Your task to perform on an android device: Go to calendar. Show me events next week Image 0: 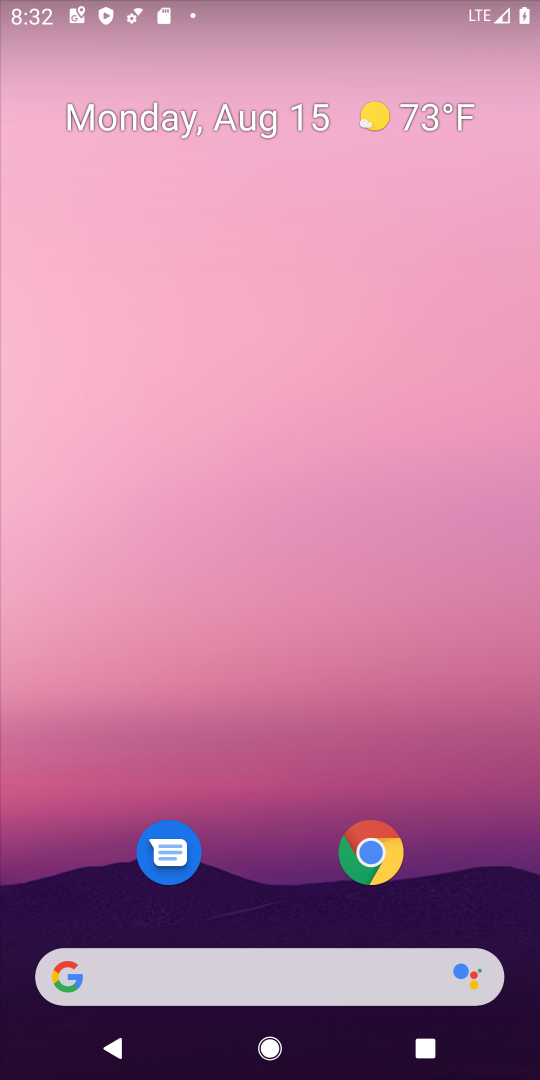
Step 0: drag from (231, 974) to (289, 196)
Your task to perform on an android device: Go to calendar. Show me events next week Image 1: 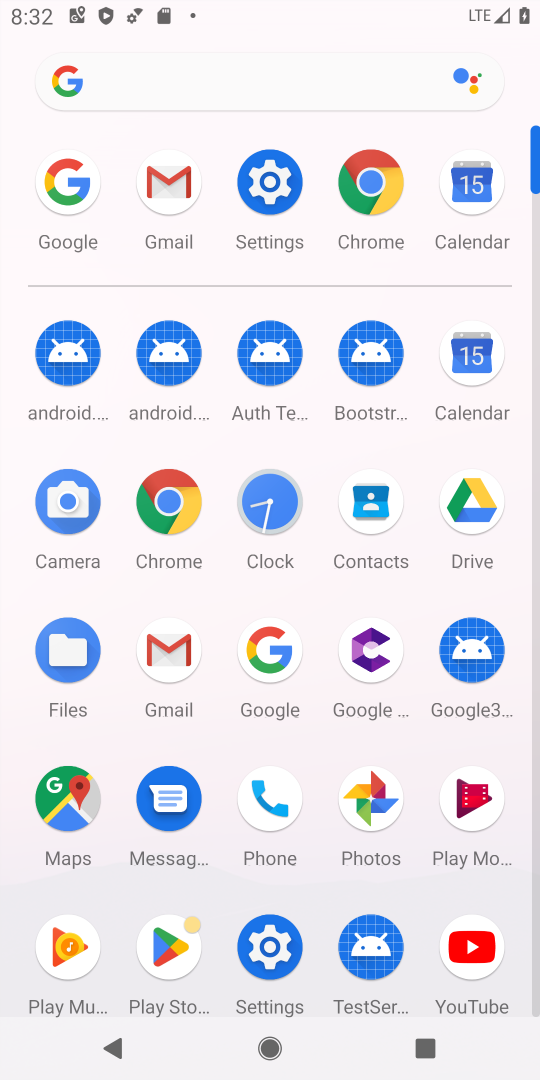
Step 1: click (474, 355)
Your task to perform on an android device: Go to calendar. Show me events next week Image 2: 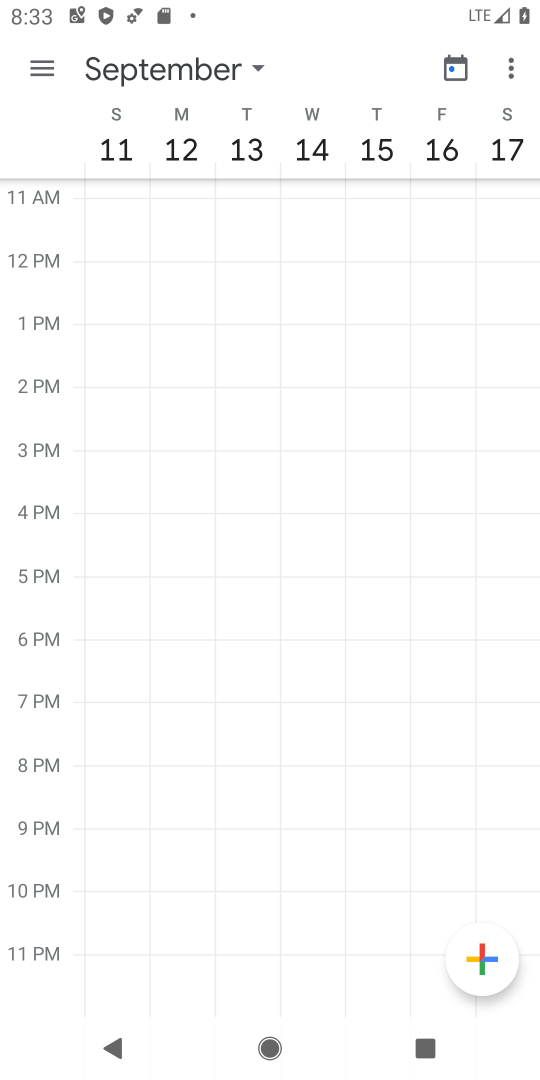
Step 2: click (455, 70)
Your task to perform on an android device: Go to calendar. Show me events next week Image 3: 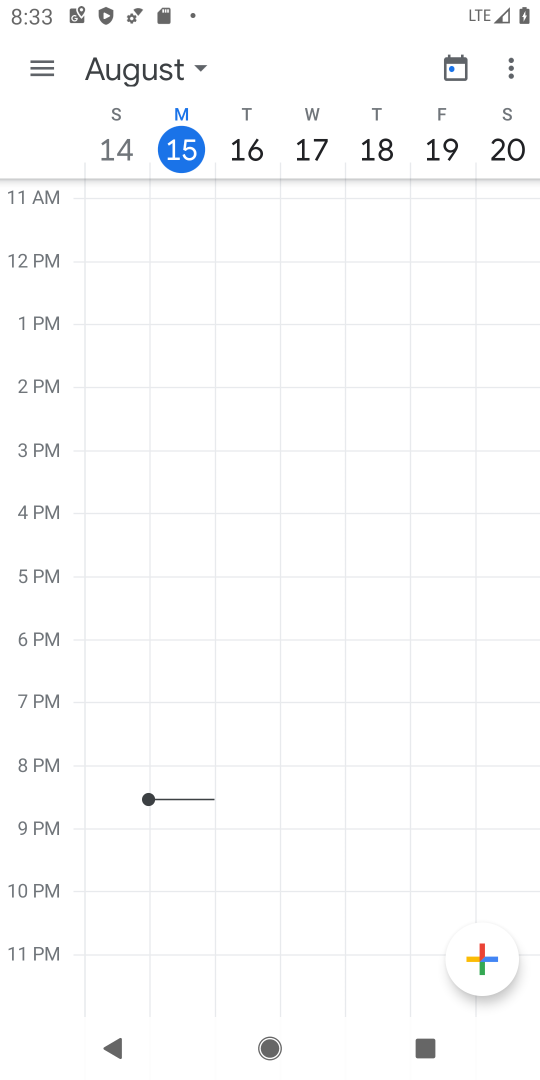
Step 3: click (200, 61)
Your task to perform on an android device: Go to calendar. Show me events next week Image 4: 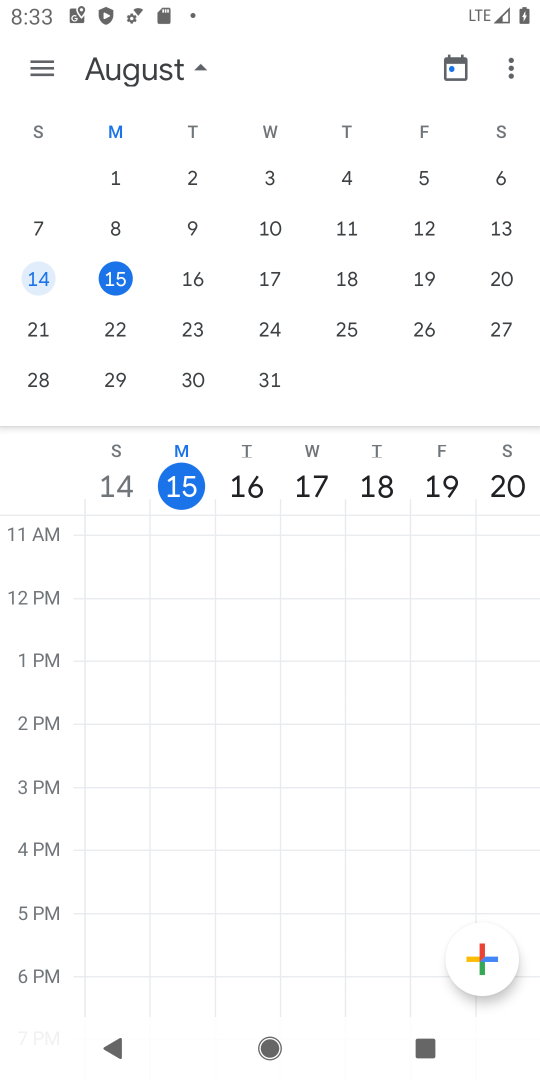
Step 4: drag from (471, 306) to (8, 267)
Your task to perform on an android device: Go to calendar. Show me events next week Image 5: 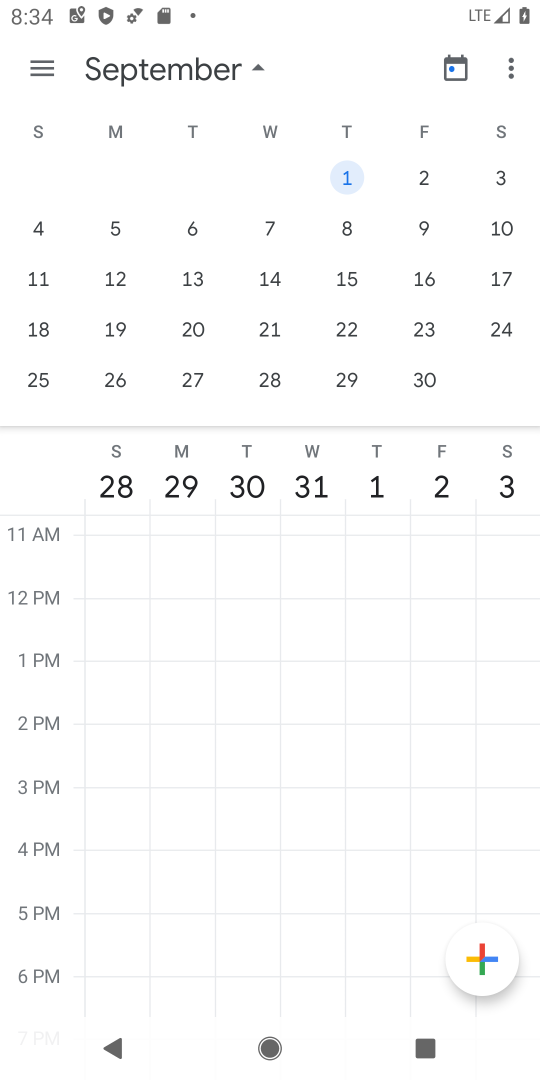
Step 5: click (126, 276)
Your task to perform on an android device: Go to calendar. Show me events next week Image 6: 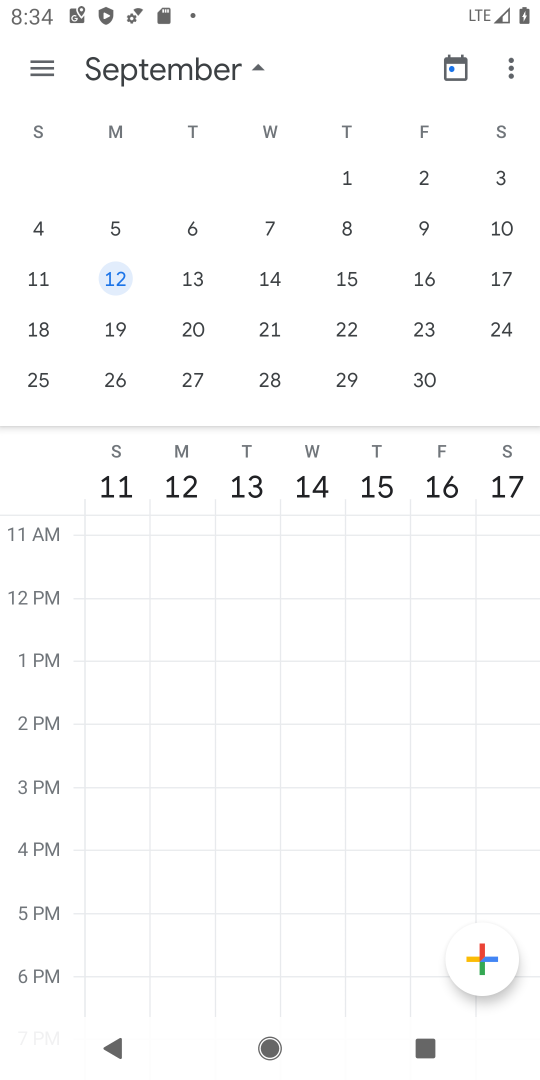
Step 6: click (42, 78)
Your task to perform on an android device: Go to calendar. Show me events next week Image 7: 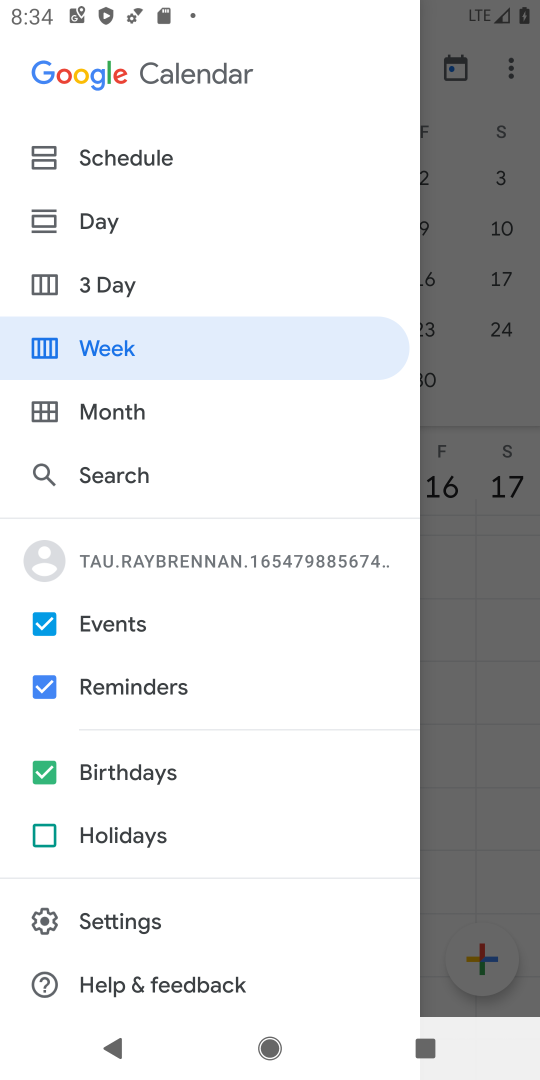
Step 7: click (104, 351)
Your task to perform on an android device: Go to calendar. Show me events next week Image 8: 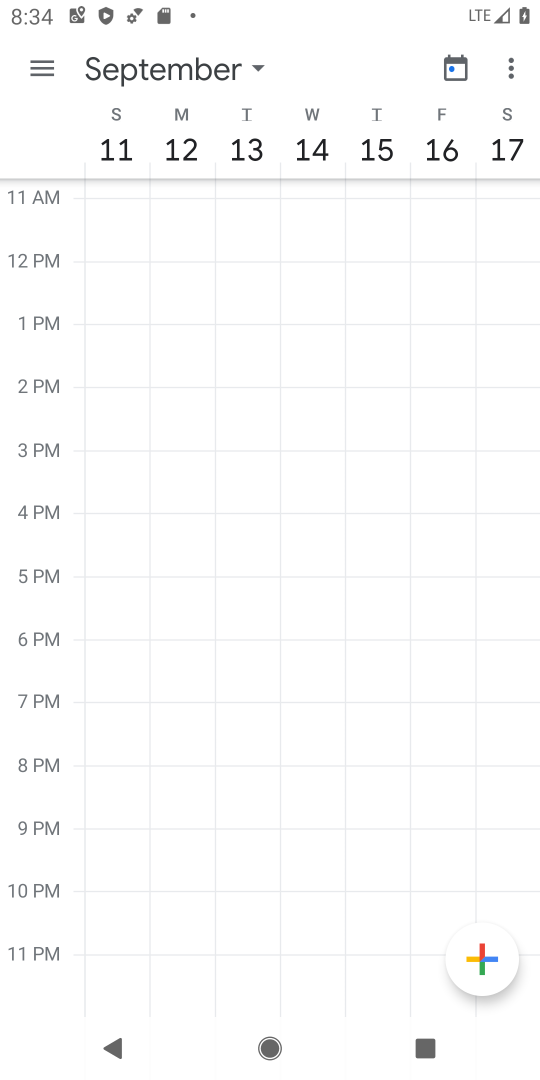
Step 8: task complete